Your task to perform on an android device: When is my next meeting? Image 0: 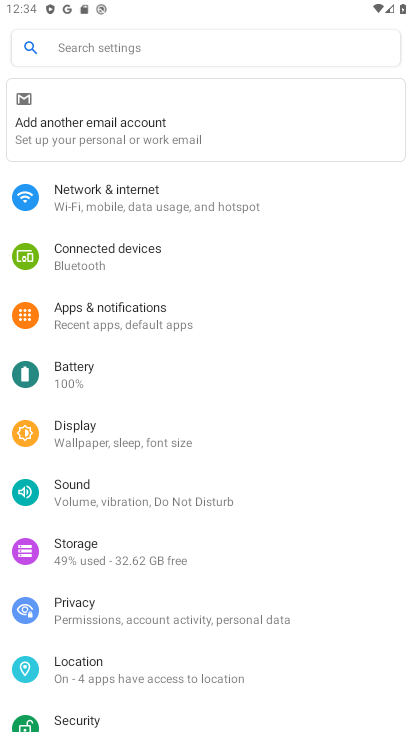
Step 0: press home button
Your task to perform on an android device: When is my next meeting? Image 1: 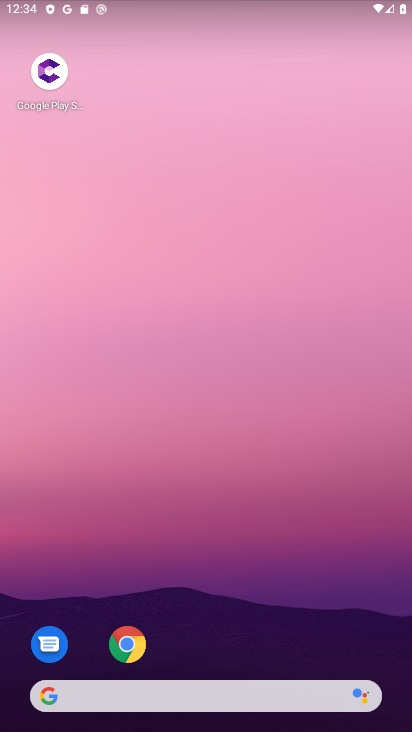
Step 1: drag from (302, 616) to (260, 178)
Your task to perform on an android device: When is my next meeting? Image 2: 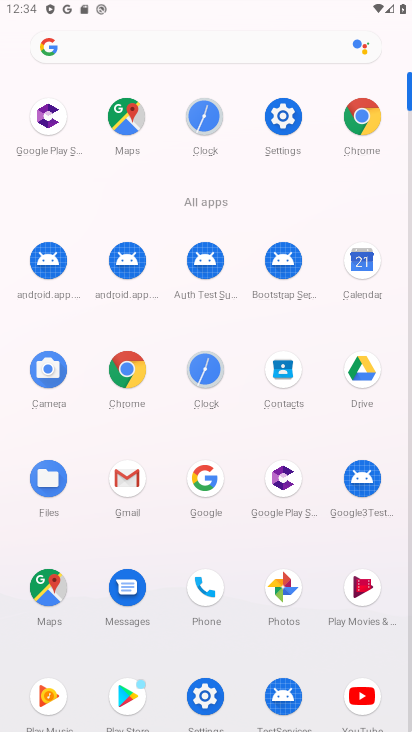
Step 2: click (356, 270)
Your task to perform on an android device: When is my next meeting? Image 3: 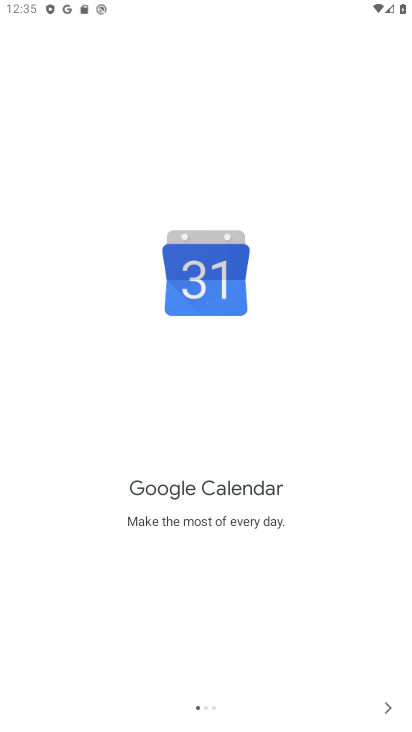
Step 3: click (385, 716)
Your task to perform on an android device: When is my next meeting? Image 4: 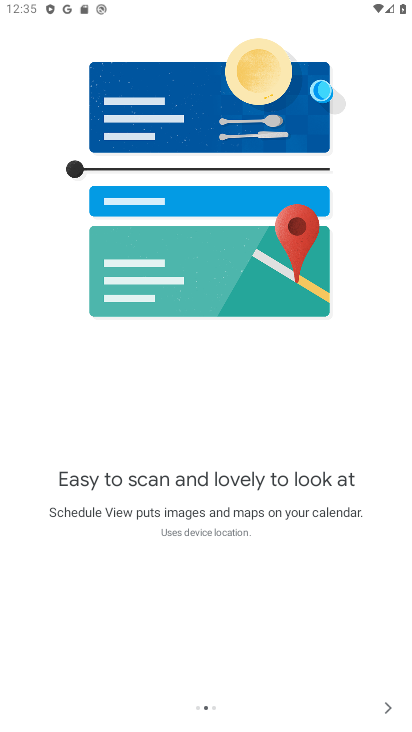
Step 4: click (385, 716)
Your task to perform on an android device: When is my next meeting? Image 5: 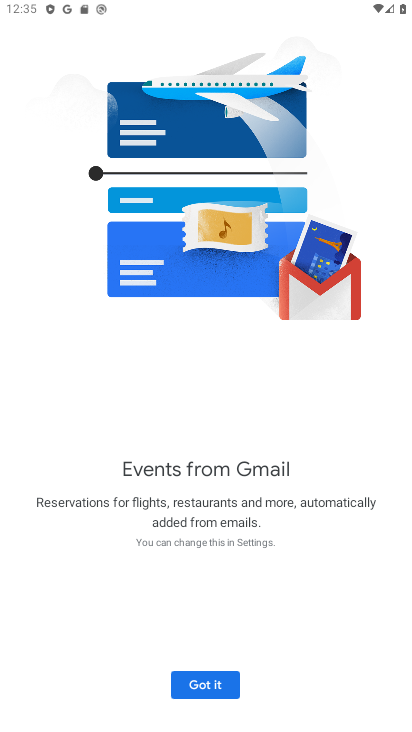
Step 5: click (182, 679)
Your task to perform on an android device: When is my next meeting? Image 6: 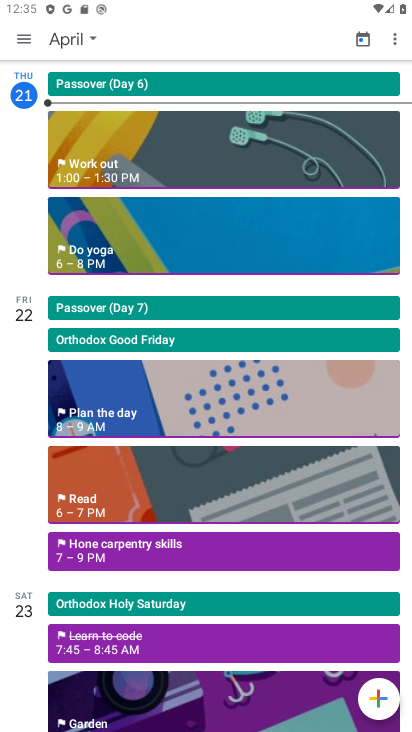
Step 6: click (30, 39)
Your task to perform on an android device: When is my next meeting? Image 7: 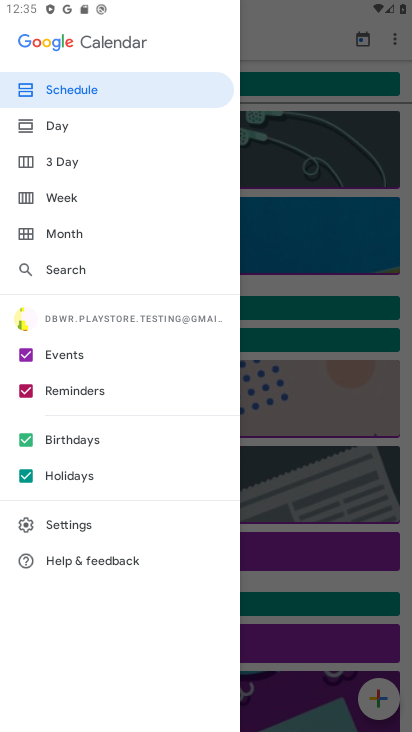
Step 7: click (64, 90)
Your task to perform on an android device: When is my next meeting? Image 8: 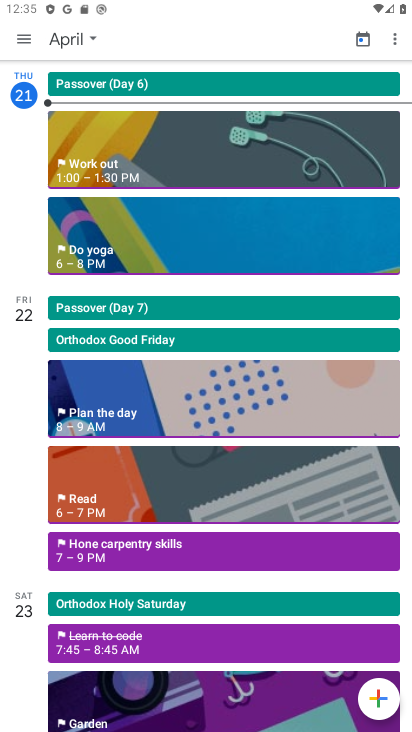
Step 8: task complete